Your task to perform on an android device: visit the assistant section in the google photos Image 0: 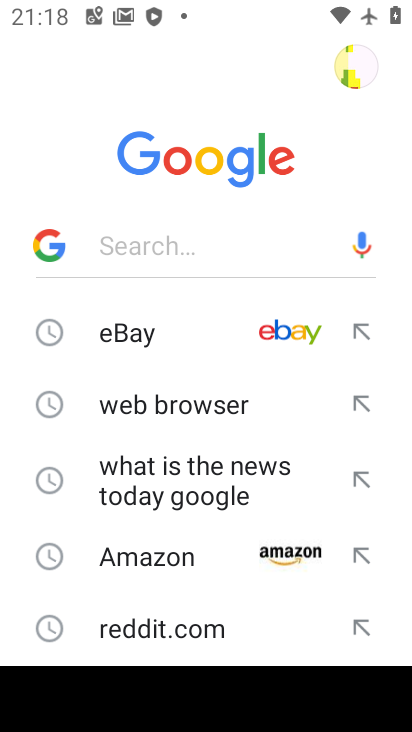
Step 0: press home button
Your task to perform on an android device: visit the assistant section in the google photos Image 1: 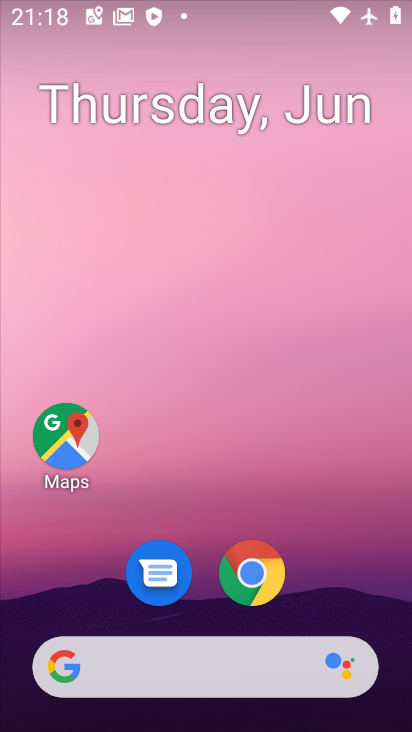
Step 1: drag from (245, 572) to (248, 267)
Your task to perform on an android device: visit the assistant section in the google photos Image 2: 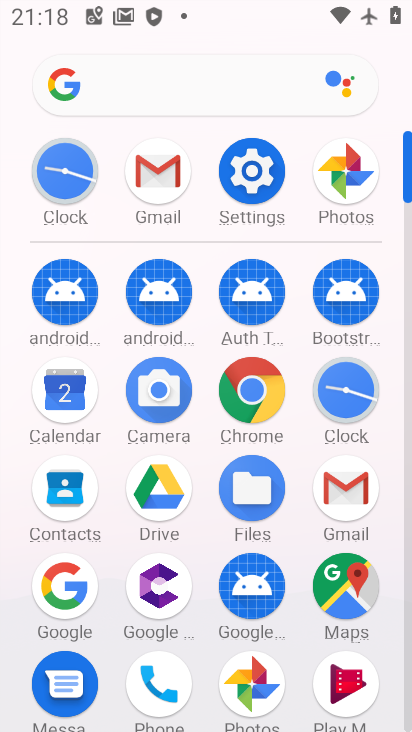
Step 2: drag from (200, 622) to (210, 396)
Your task to perform on an android device: visit the assistant section in the google photos Image 3: 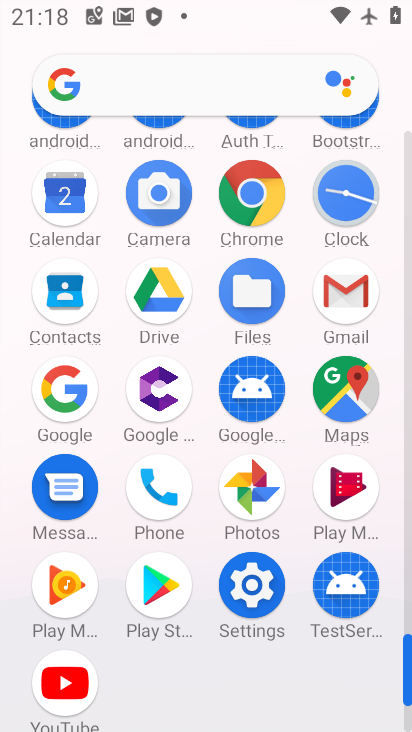
Step 3: click (162, 580)
Your task to perform on an android device: visit the assistant section in the google photos Image 4: 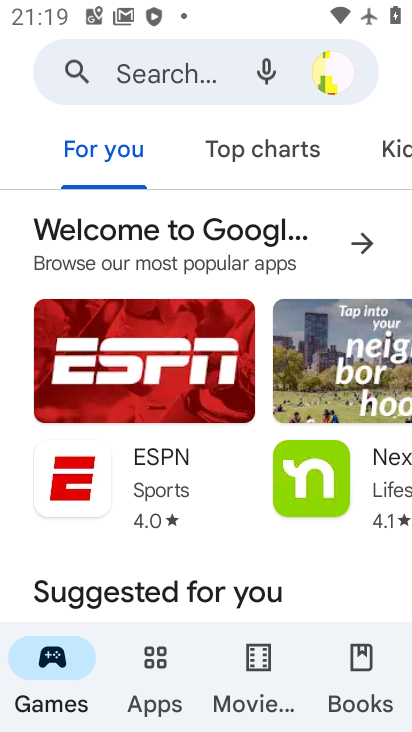
Step 4: press home button
Your task to perform on an android device: visit the assistant section in the google photos Image 5: 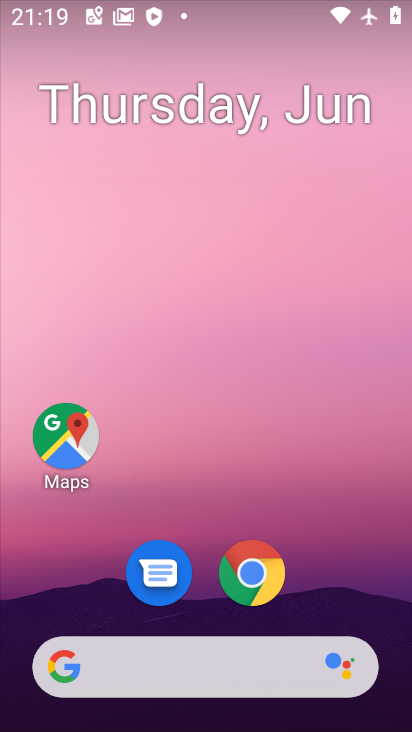
Step 5: drag from (304, 606) to (274, 264)
Your task to perform on an android device: visit the assistant section in the google photos Image 6: 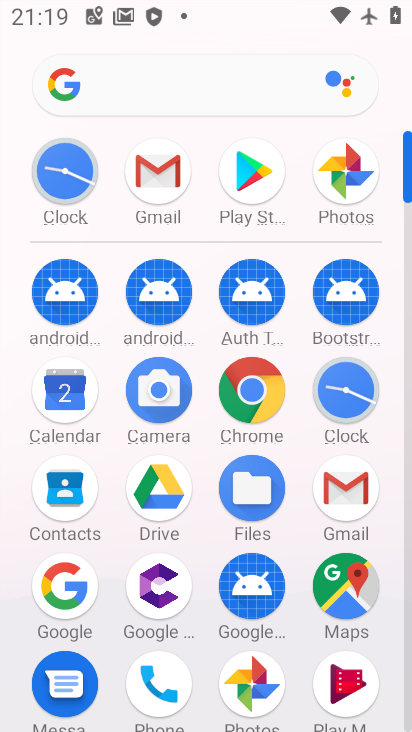
Step 6: drag from (219, 616) to (216, 363)
Your task to perform on an android device: visit the assistant section in the google photos Image 7: 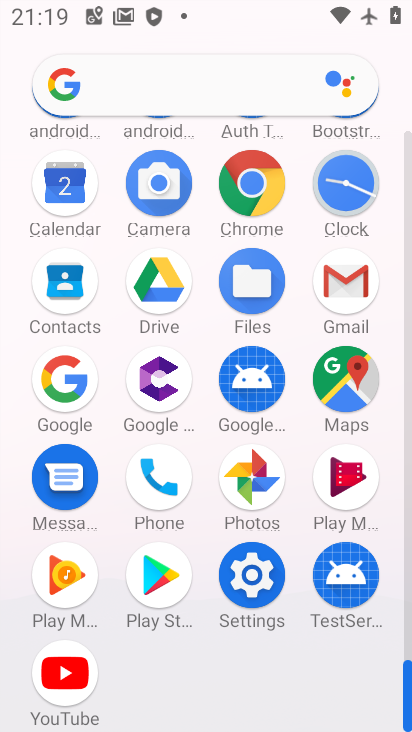
Step 7: drag from (213, 213) to (198, 557)
Your task to perform on an android device: visit the assistant section in the google photos Image 8: 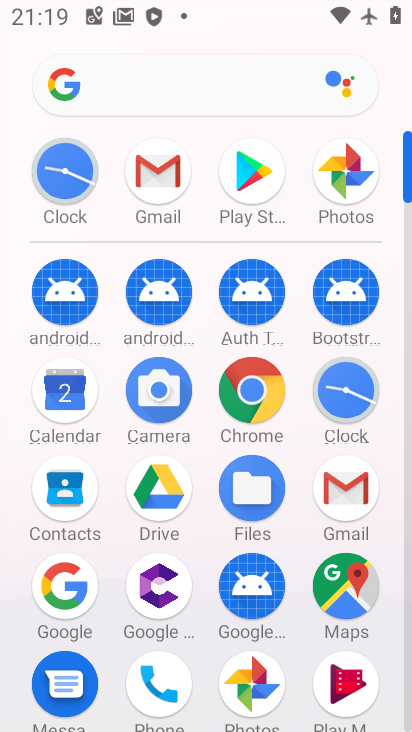
Step 8: click (352, 150)
Your task to perform on an android device: visit the assistant section in the google photos Image 9: 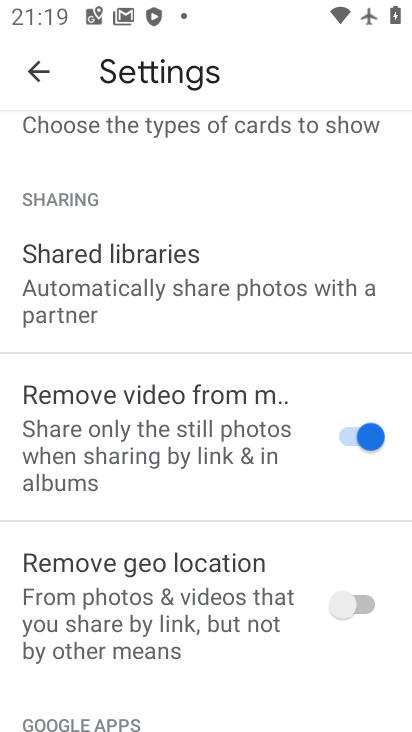
Step 9: click (44, 65)
Your task to perform on an android device: visit the assistant section in the google photos Image 10: 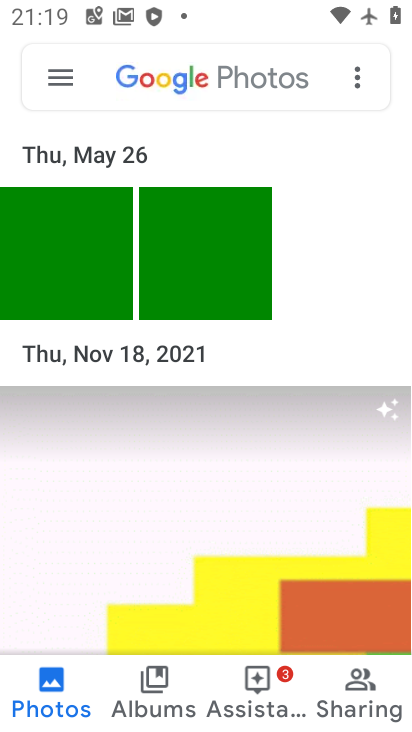
Step 10: click (258, 728)
Your task to perform on an android device: visit the assistant section in the google photos Image 11: 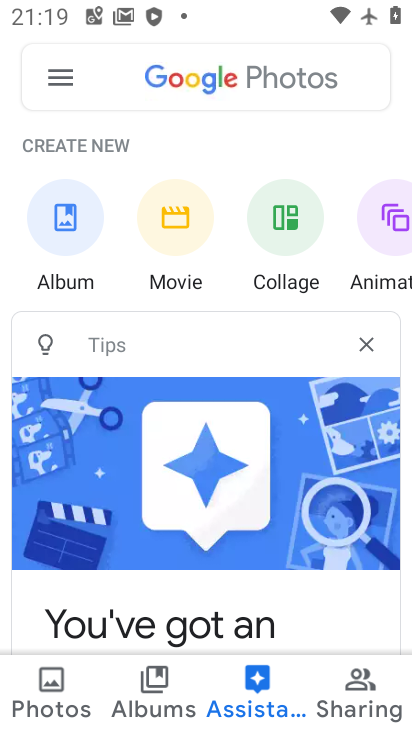
Step 11: task complete